Your task to perform on an android device: Open Google Image 0: 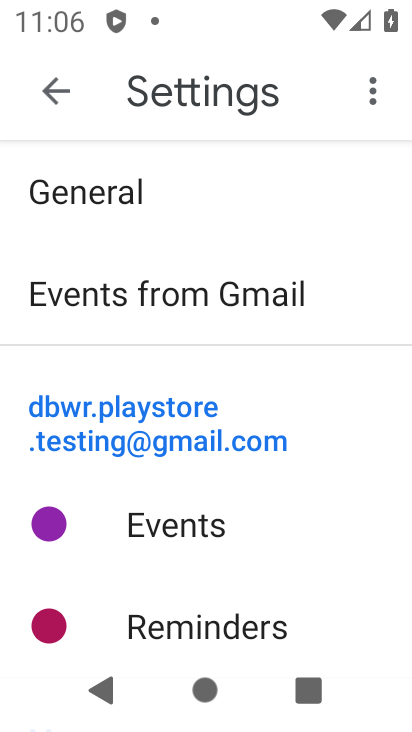
Step 0: press home button
Your task to perform on an android device: Open Google Image 1: 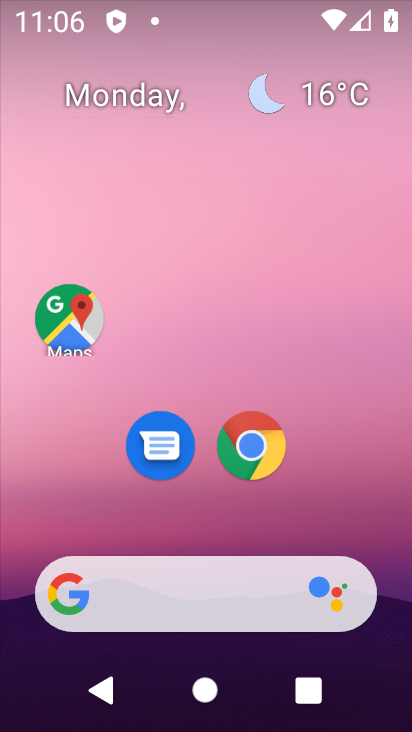
Step 1: click (76, 583)
Your task to perform on an android device: Open Google Image 2: 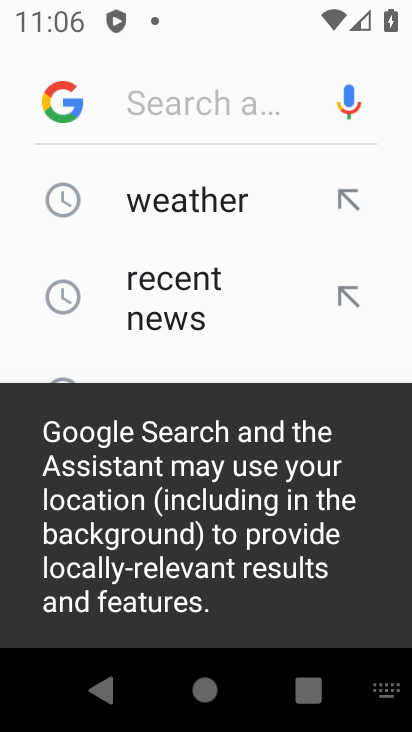
Step 2: click (60, 93)
Your task to perform on an android device: Open Google Image 3: 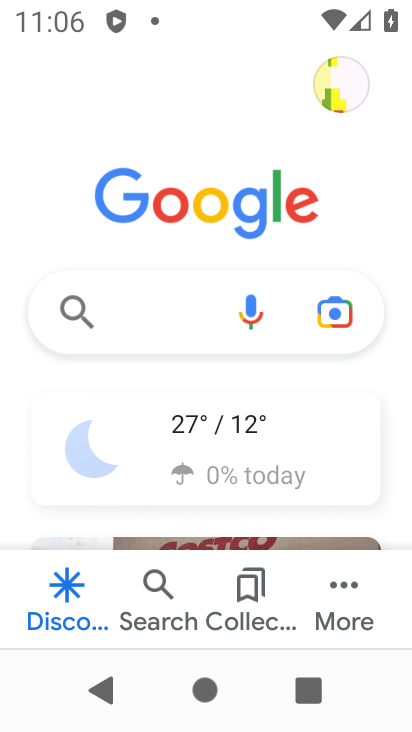
Step 3: task complete